Your task to perform on an android device: Check the weather Image 0: 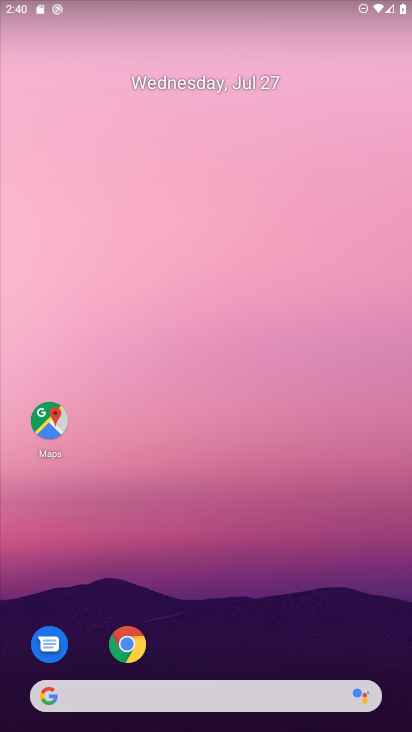
Step 0: click (168, 694)
Your task to perform on an android device: Check the weather Image 1: 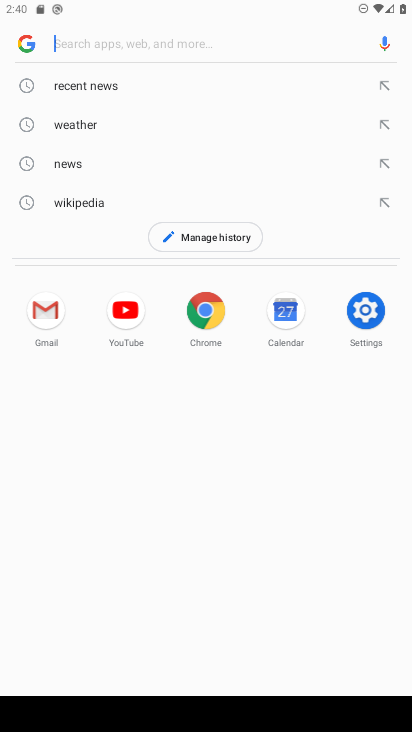
Step 1: click (97, 128)
Your task to perform on an android device: Check the weather Image 2: 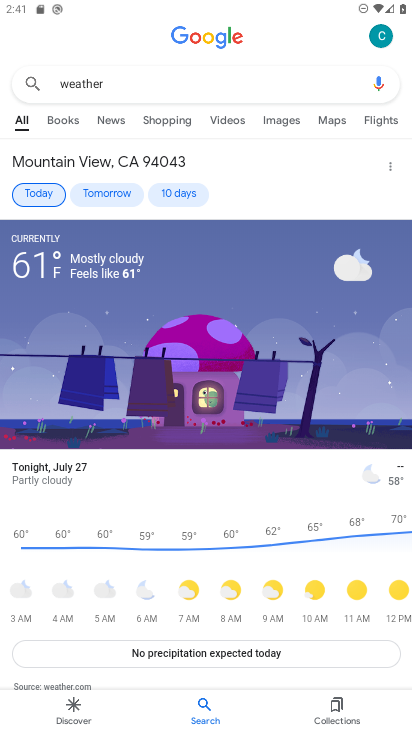
Step 2: task complete